Your task to perform on an android device: Clear the cart on amazon. Add panasonic triple a to the cart on amazon Image 0: 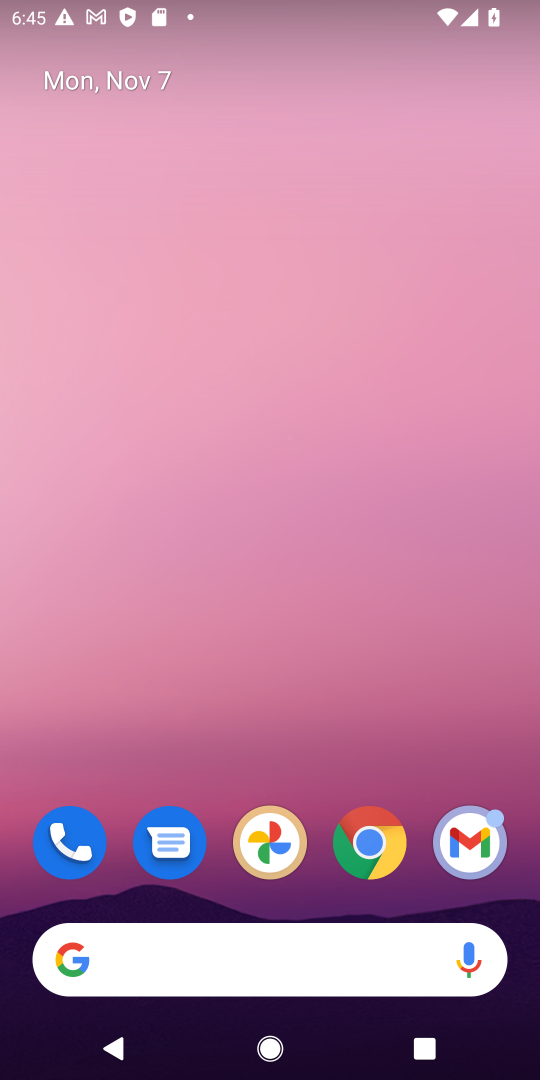
Step 0: drag from (241, 848) to (28, 135)
Your task to perform on an android device: Clear the cart on amazon. Add panasonic triple a to the cart on amazon Image 1: 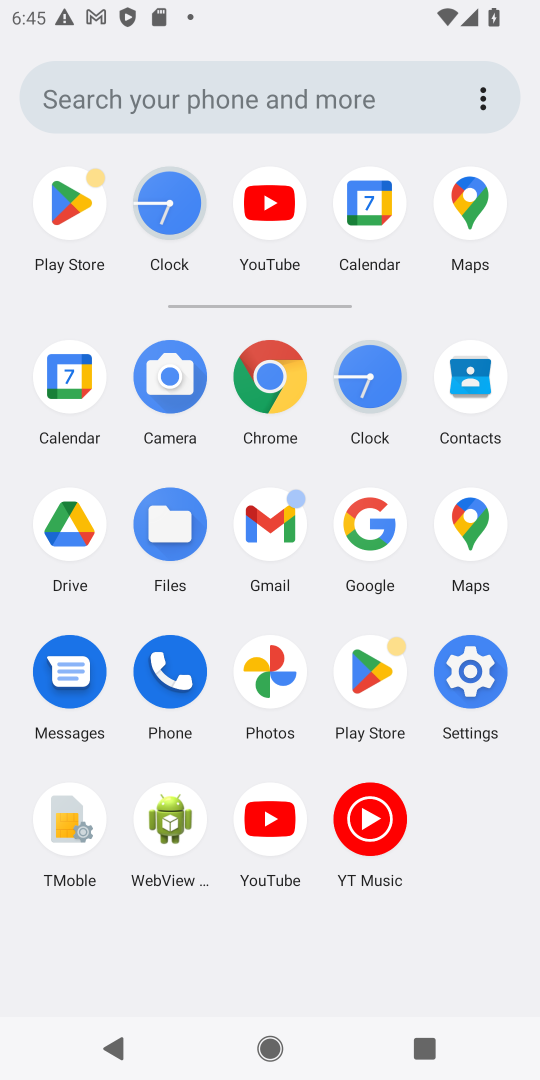
Step 1: click (254, 382)
Your task to perform on an android device: Clear the cart on amazon. Add panasonic triple a to the cart on amazon Image 2: 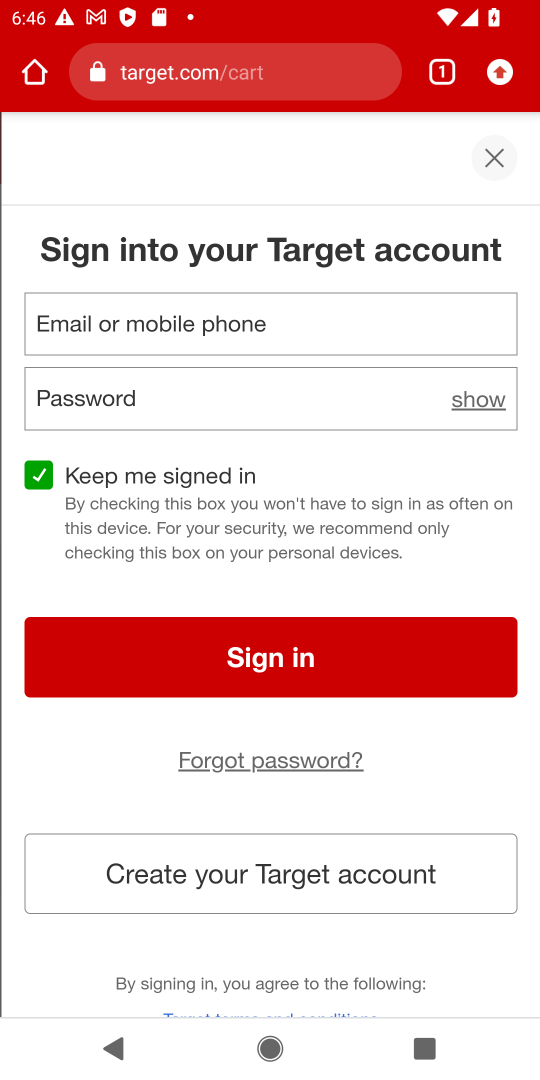
Step 2: click (230, 89)
Your task to perform on an android device: Clear the cart on amazon. Add panasonic triple a to the cart on amazon Image 3: 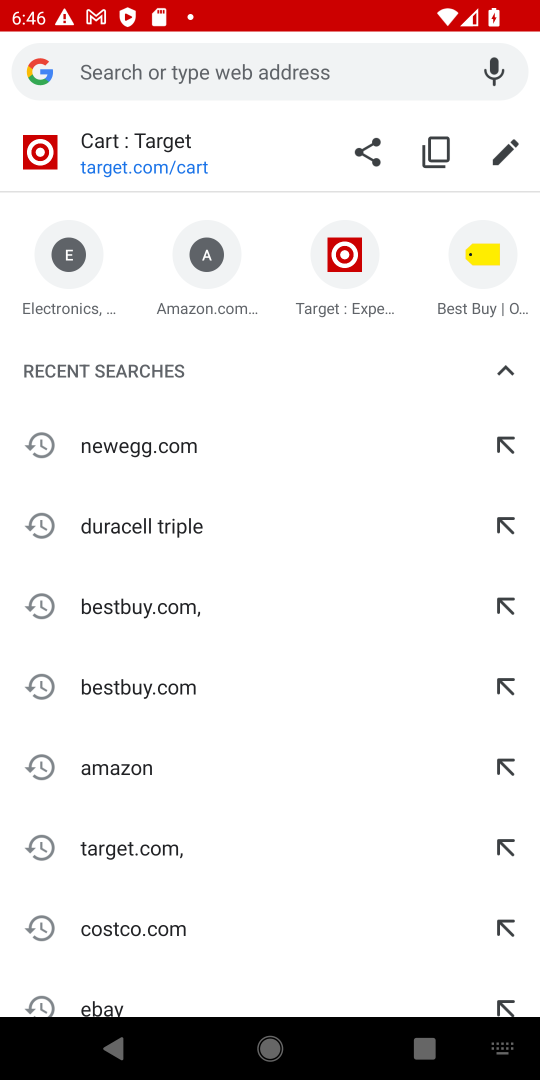
Step 3: type "amazon"
Your task to perform on an android device: Clear the cart on amazon. Add panasonic triple a to the cart on amazon Image 4: 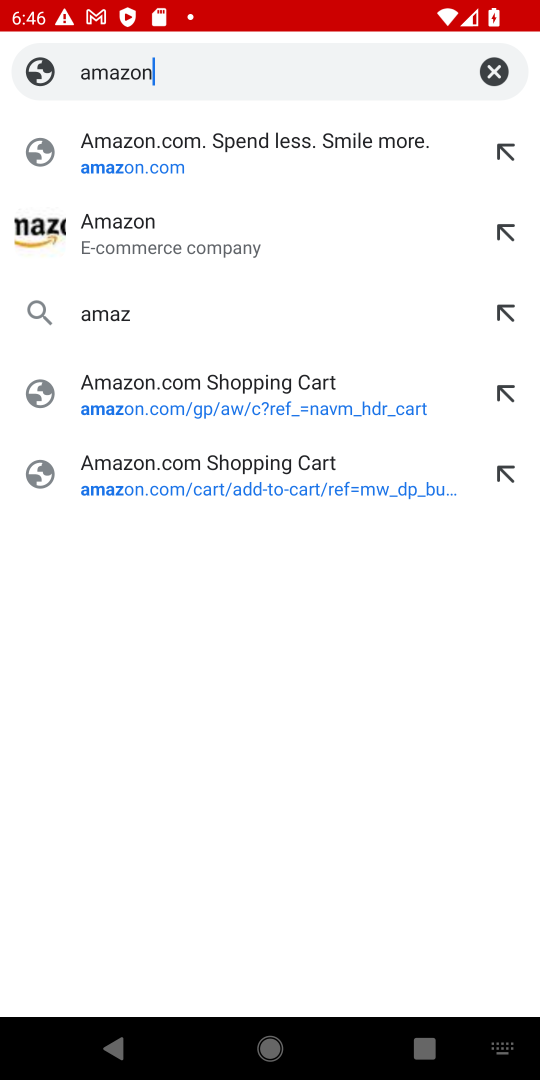
Step 4: press enter
Your task to perform on an android device: Clear the cart on amazon. Add panasonic triple a to the cart on amazon Image 5: 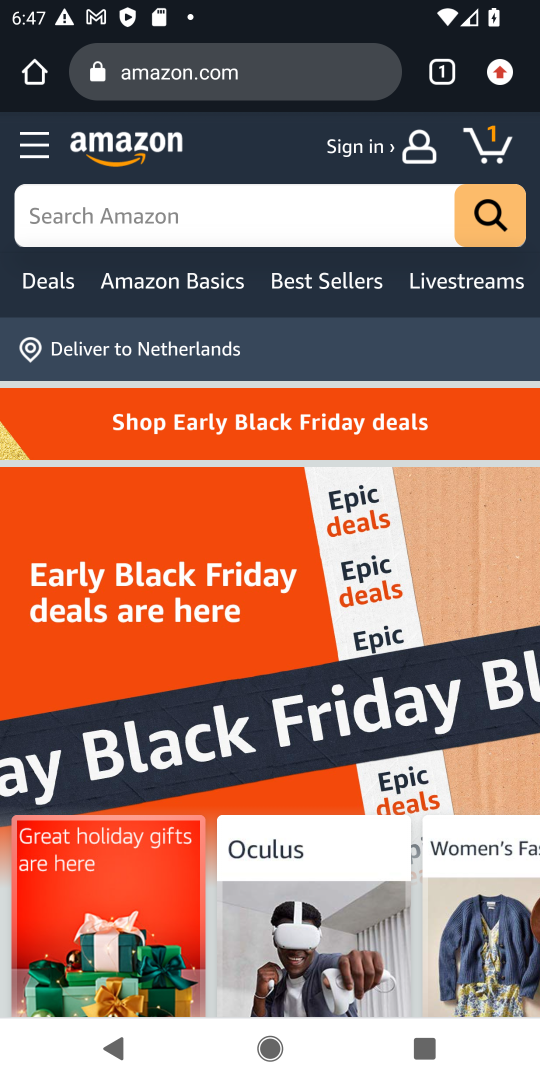
Step 5: click (201, 208)
Your task to perform on an android device: Clear the cart on amazon. Add panasonic triple a to the cart on amazon Image 6: 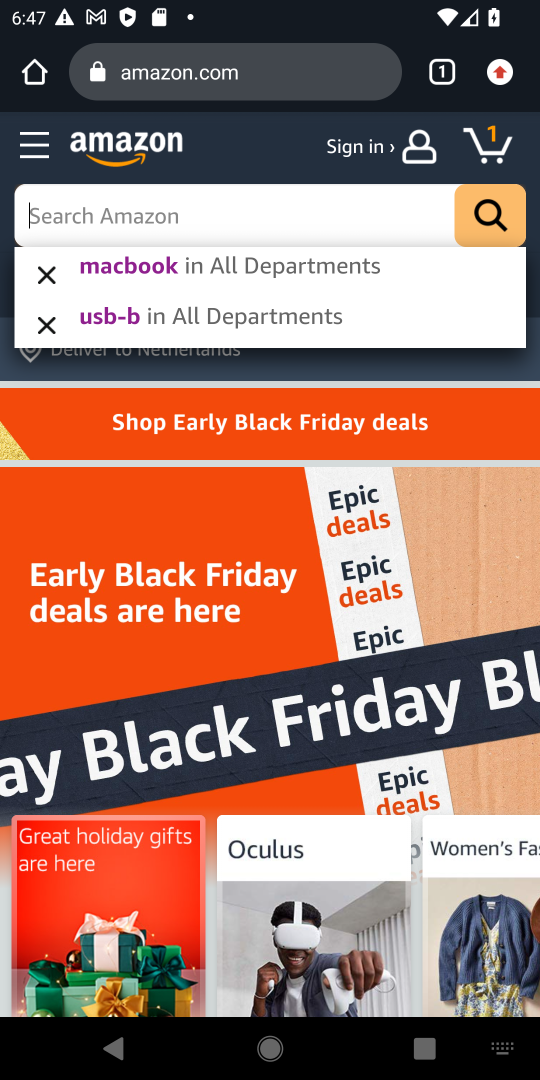
Step 6: type "panasonic triple"
Your task to perform on an android device: Clear the cart on amazon. Add panasonic triple a to the cart on amazon Image 7: 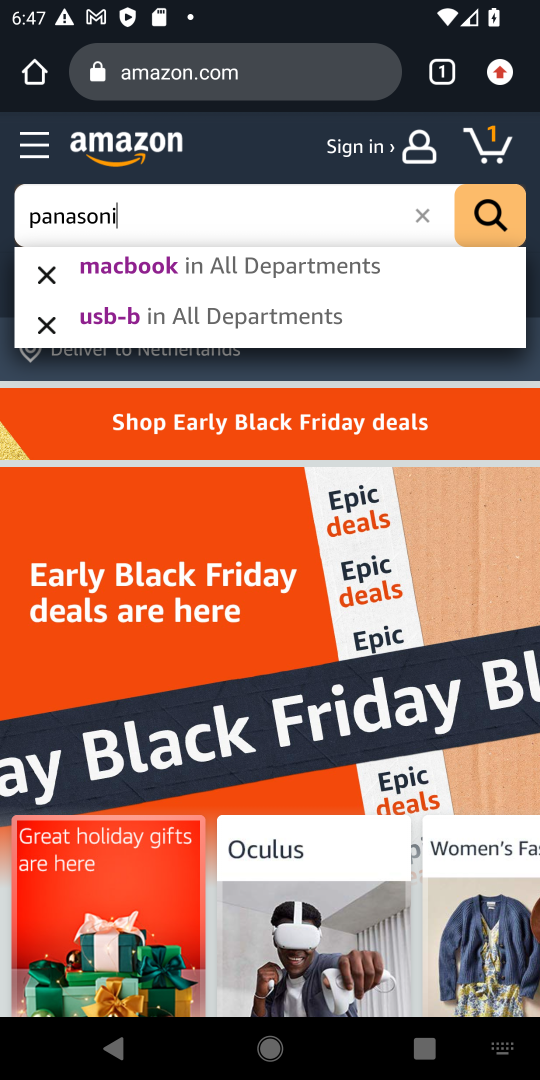
Step 7: press enter
Your task to perform on an android device: Clear the cart on amazon. Add panasonic triple a to the cart on amazon Image 8: 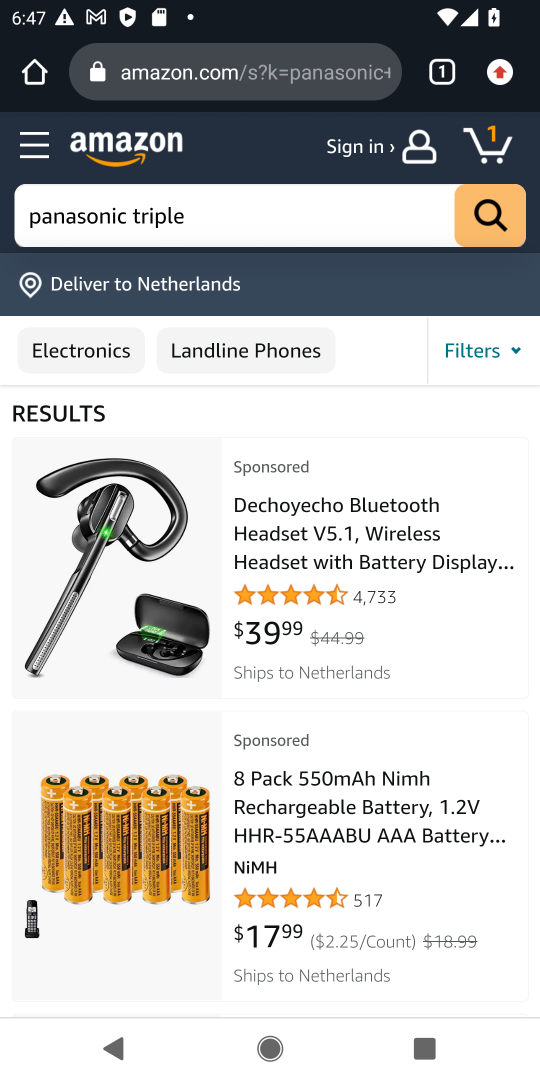
Step 8: click (34, 558)
Your task to perform on an android device: Clear the cart on amazon. Add panasonic triple a to the cart on amazon Image 9: 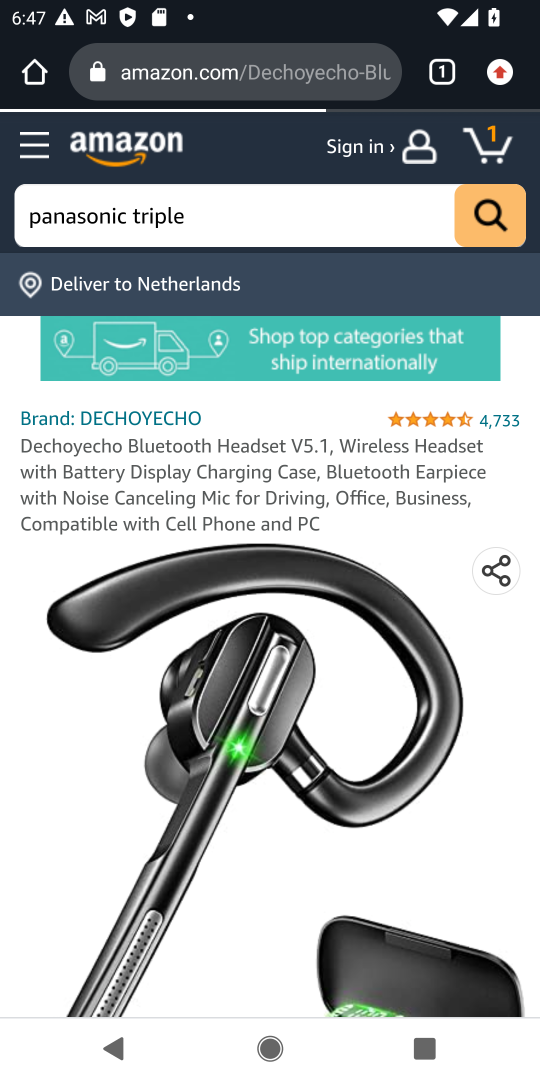
Step 9: drag from (318, 803) to (266, 314)
Your task to perform on an android device: Clear the cart on amazon. Add panasonic triple a to the cart on amazon Image 10: 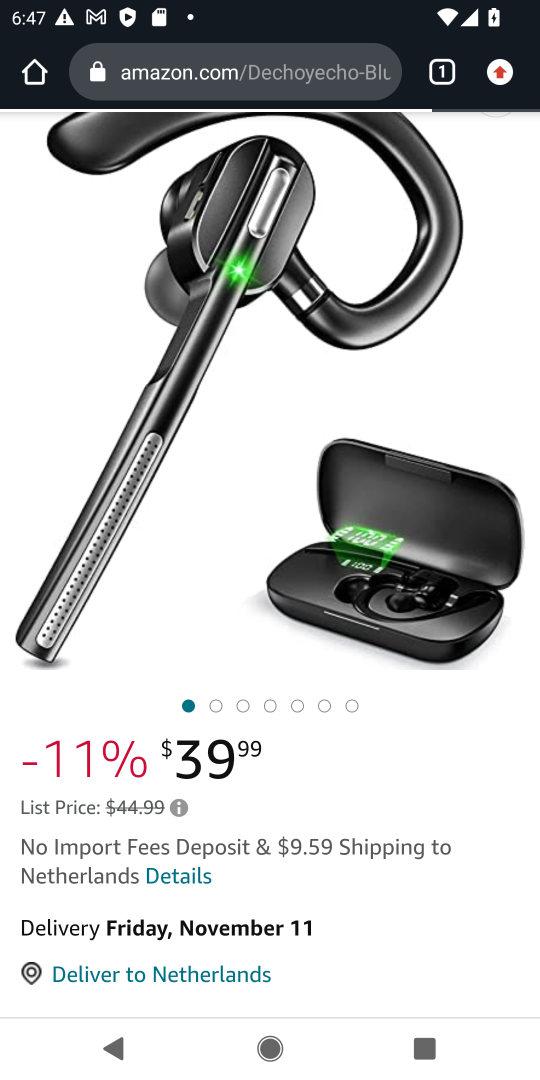
Step 10: drag from (235, 779) to (210, 304)
Your task to perform on an android device: Clear the cart on amazon. Add panasonic triple a to the cart on amazon Image 11: 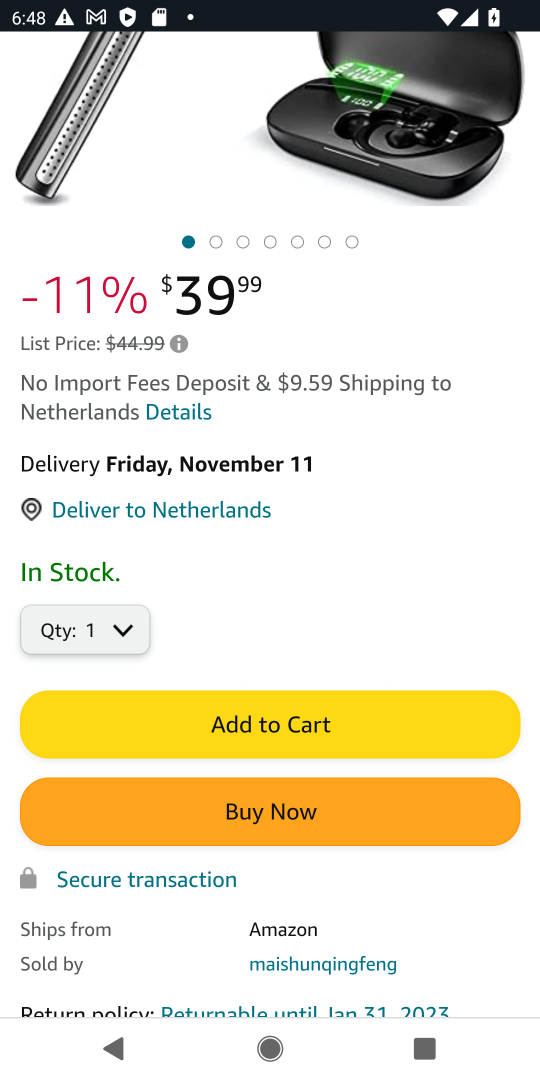
Step 11: click (280, 713)
Your task to perform on an android device: Clear the cart on amazon. Add panasonic triple a to the cart on amazon Image 12: 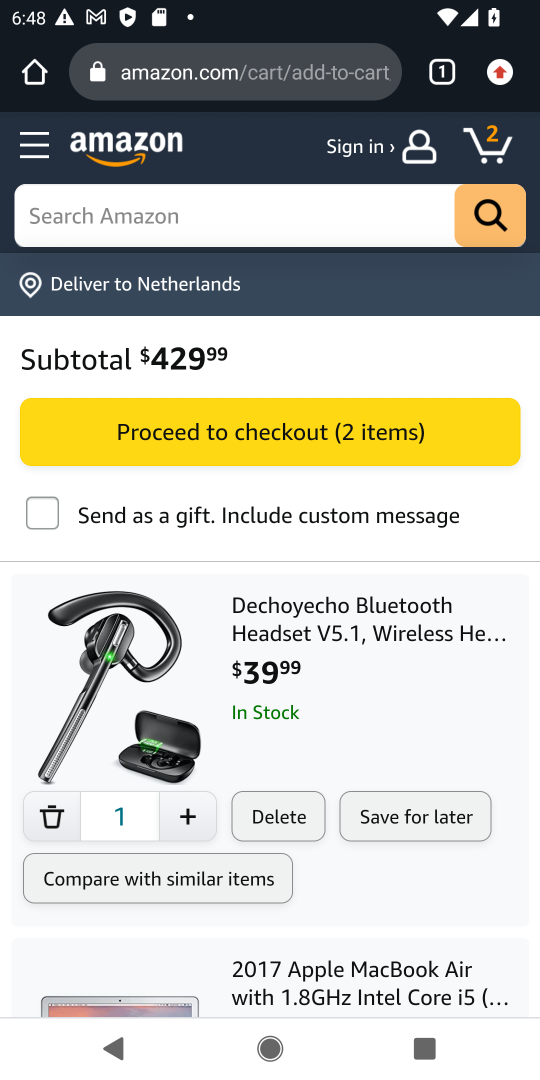
Step 12: task complete